Your task to perform on an android device: check battery use Image 0: 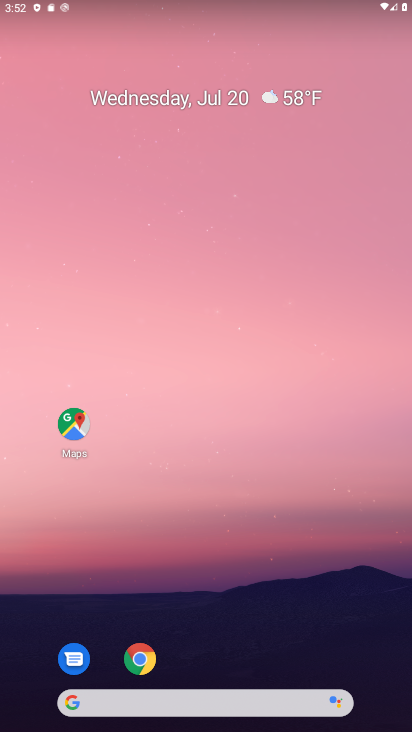
Step 0: click (198, 246)
Your task to perform on an android device: check battery use Image 1: 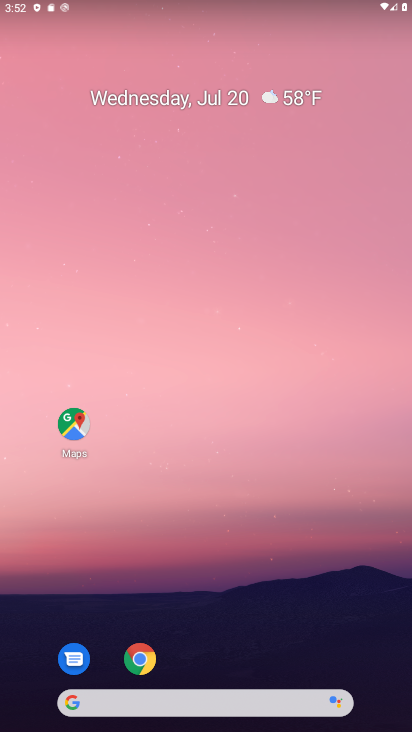
Step 1: drag from (271, 591) to (205, 183)
Your task to perform on an android device: check battery use Image 2: 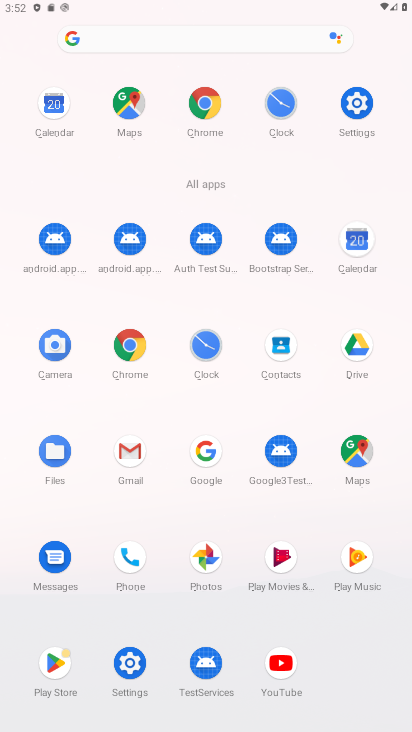
Step 2: drag from (240, 484) to (239, 177)
Your task to perform on an android device: check battery use Image 3: 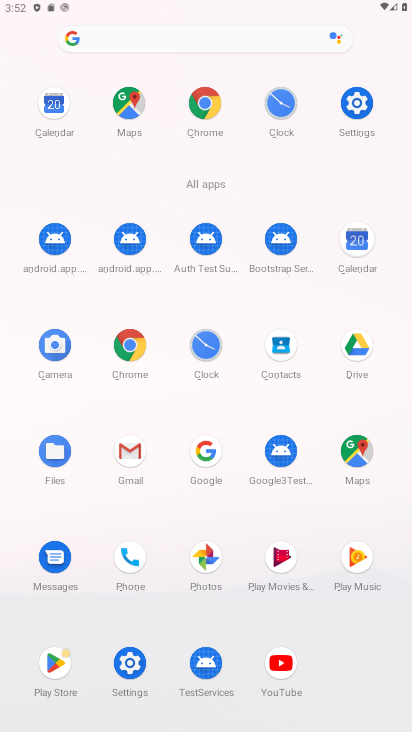
Step 3: click (365, 97)
Your task to perform on an android device: check battery use Image 4: 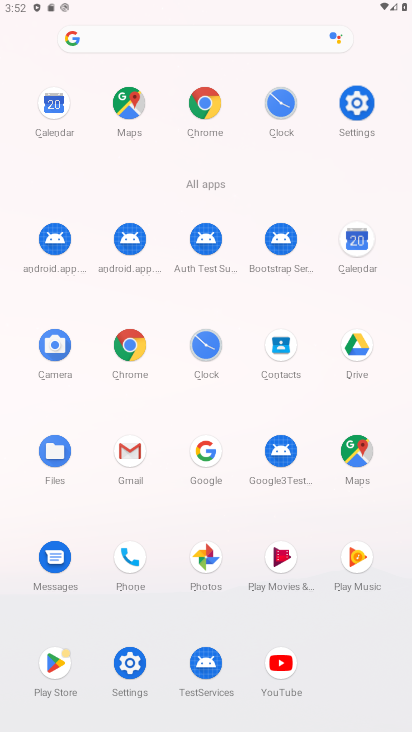
Step 4: click (364, 100)
Your task to perform on an android device: check battery use Image 5: 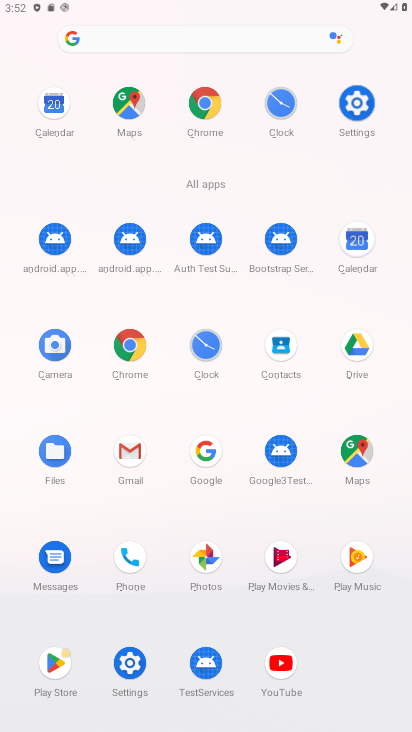
Step 5: click (371, 113)
Your task to perform on an android device: check battery use Image 6: 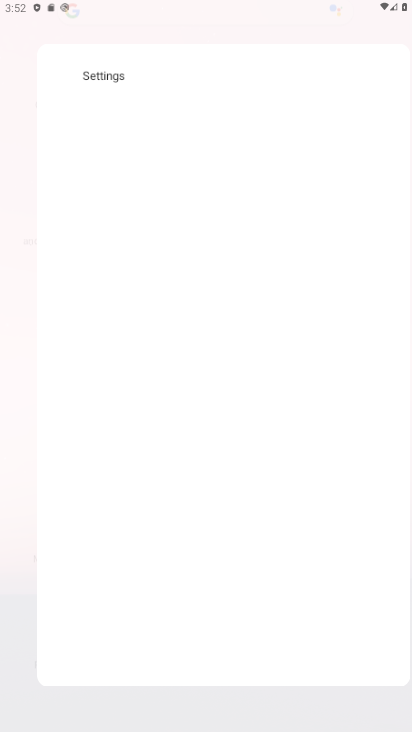
Step 6: click (371, 113)
Your task to perform on an android device: check battery use Image 7: 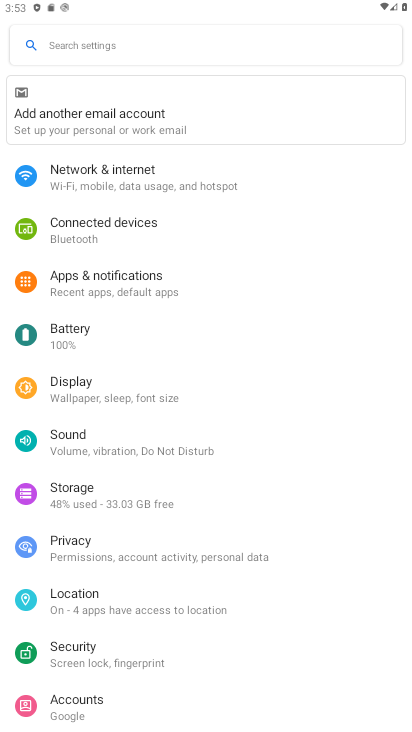
Step 7: click (65, 340)
Your task to perform on an android device: check battery use Image 8: 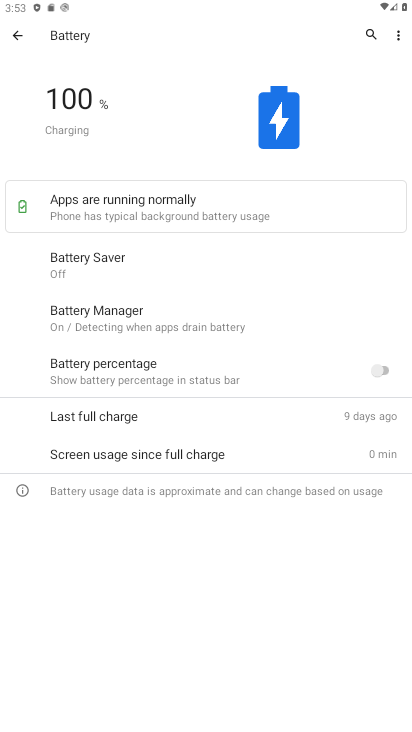
Step 8: task complete